Your task to perform on an android device: open a bookmark in the chrome app Image 0: 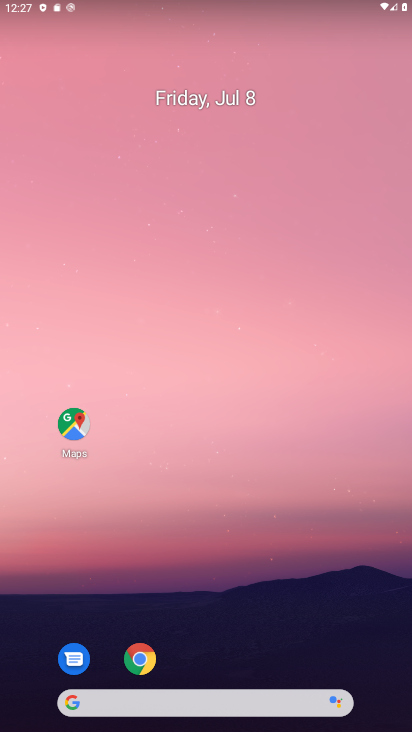
Step 0: drag from (265, 580) to (264, 305)
Your task to perform on an android device: open a bookmark in the chrome app Image 1: 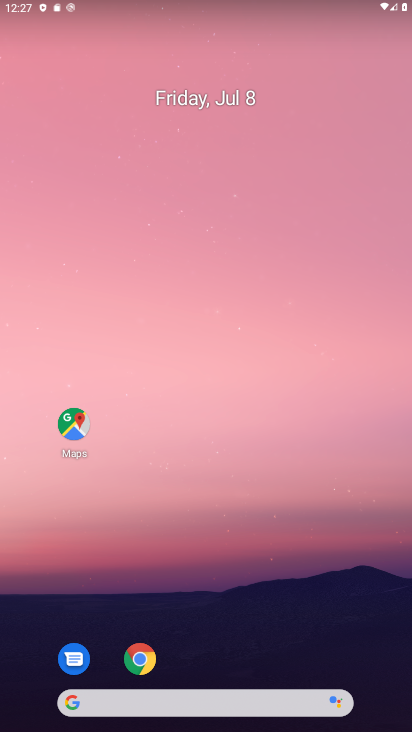
Step 1: drag from (249, 650) to (142, 99)
Your task to perform on an android device: open a bookmark in the chrome app Image 2: 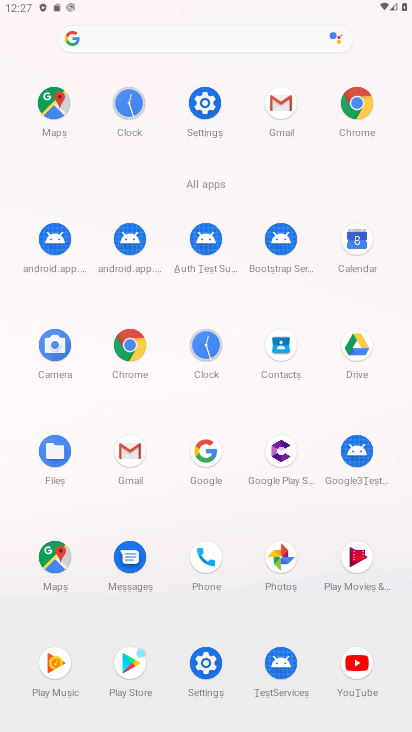
Step 2: click (355, 110)
Your task to perform on an android device: open a bookmark in the chrome app Image 3: 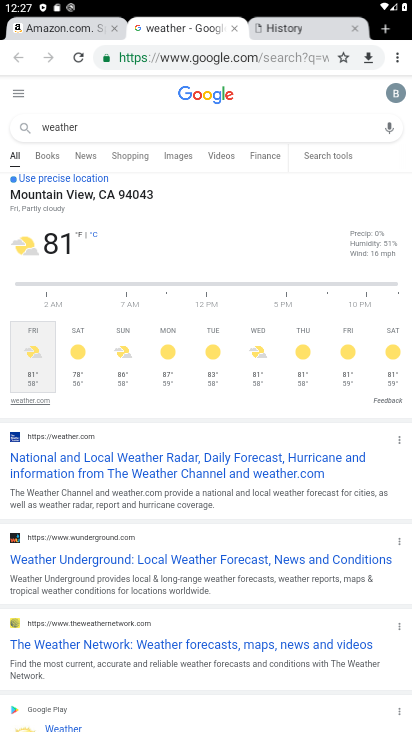
Step 3: click (407, 59)
Your task to perform on an android device: open a bookmark in the chrome app Image 4: 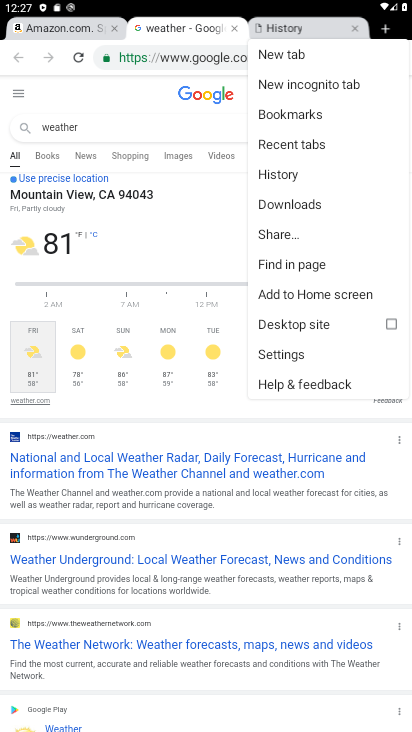
Step 4: click (335, 124)
Your task to perform on an android device: open a bookmark in the chrome app Image 5: 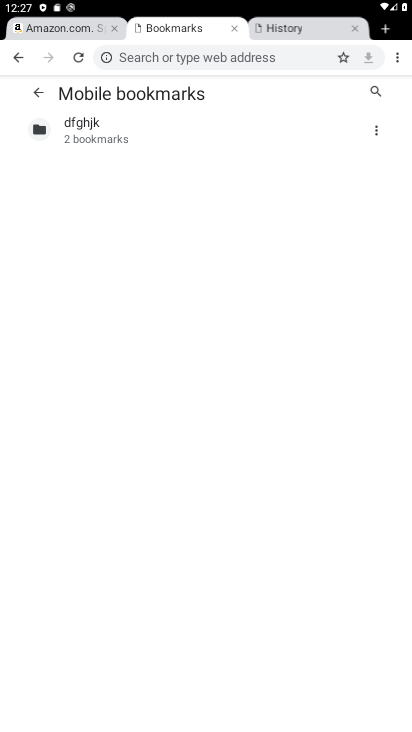
Step 5: click (201, 153)
Your task to perform on an android device: open a bookmark in the chrome app Image 6: 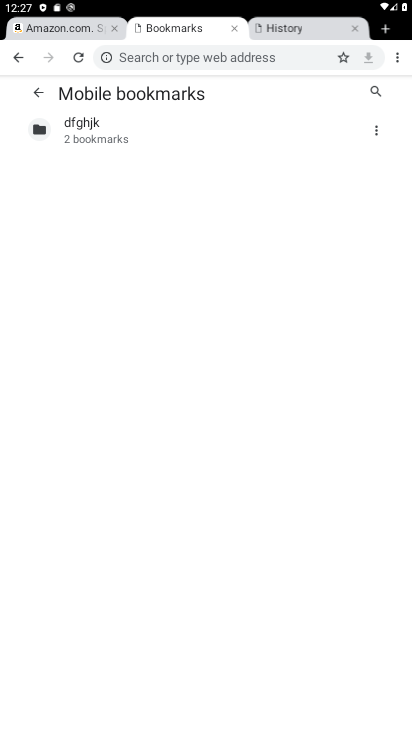
Step 6: click (183, 144)
Your task to perform on an android device: open a bookmark in the chrome app Image 7: 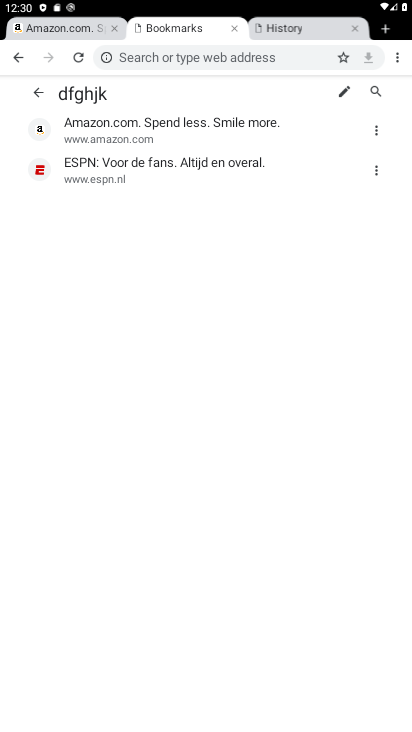
Step 7: click (166, 177)
Your task to perform on an android device: open a bookmark in the chrome app Image 8: 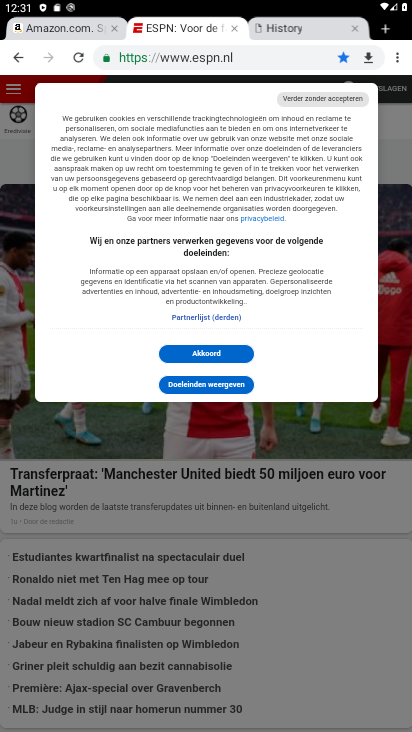
Step 8: press home button
Your task to perform on an android device: open a bookmark in the chrome app Image 9: 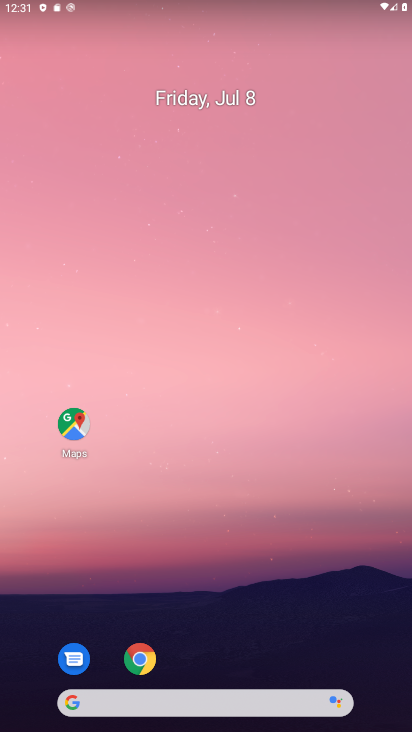
Step 9: drag from (251, 622) to (267, 68)
Your task to perform on an android device: open a bookmark in the chrome app Image 10: 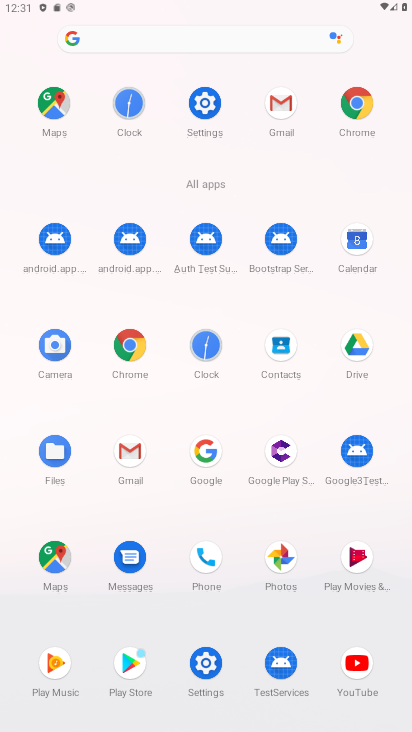
Step 10: click (348, 130)
Your task to perform on an android device: open a bookmark in the chrome app Image 11: 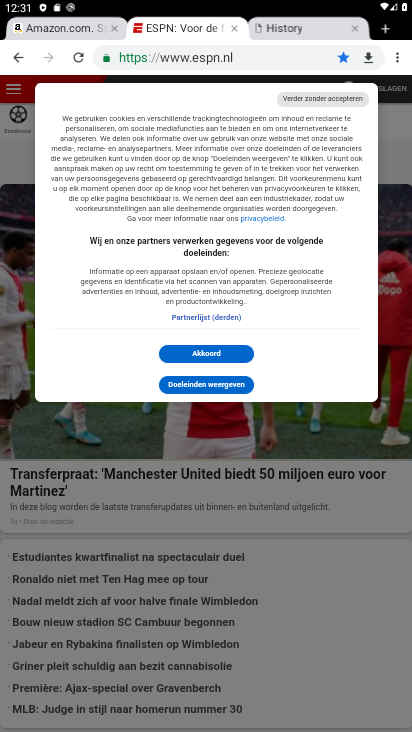
Step 11: click (401, 62)
Your task to perform on an android device: open a bookmark in the chrome app Image 12: 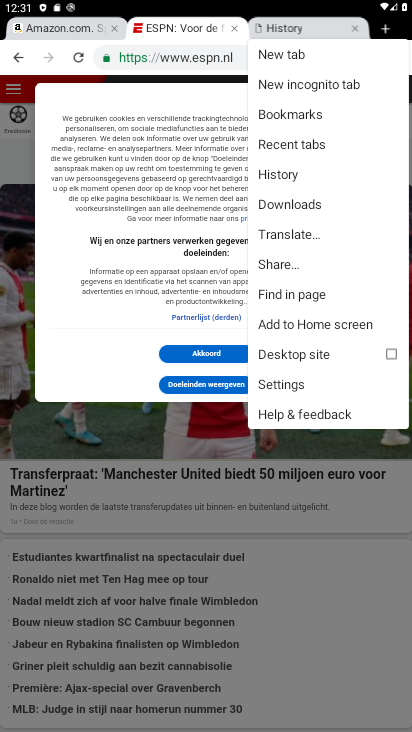
Step 12: click (298, 117)
Your task to perform on an android device: open a bookmark in the chrome app Image 13: 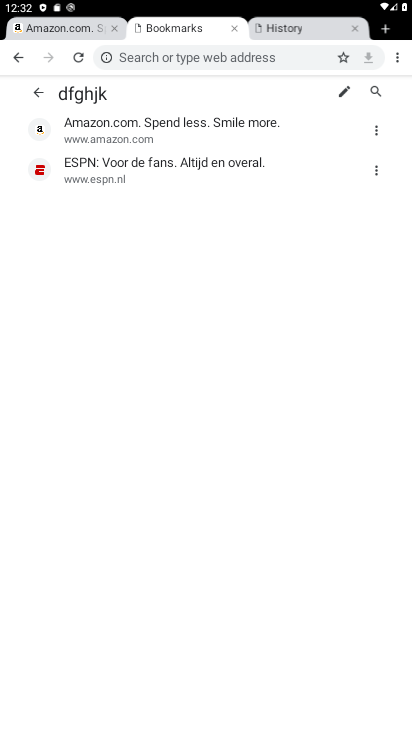
Step 13: click (208, 132)
Your task to perform on an android device: open a bookmark in the chrome app Image 14: 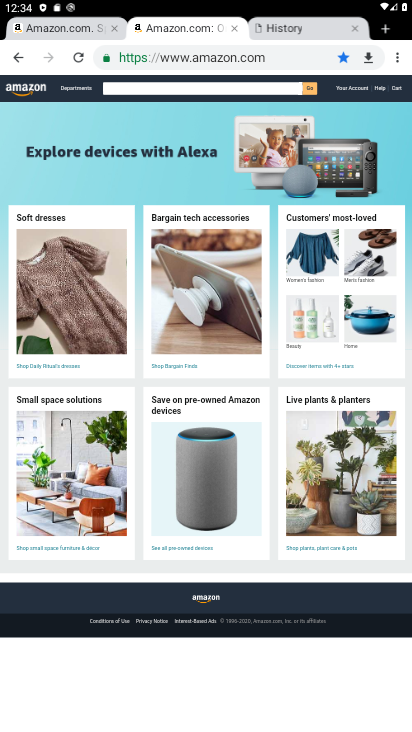
Step 14: task complete